Your task to perform on an android device: turn off javascript in the chrome app Image 0: 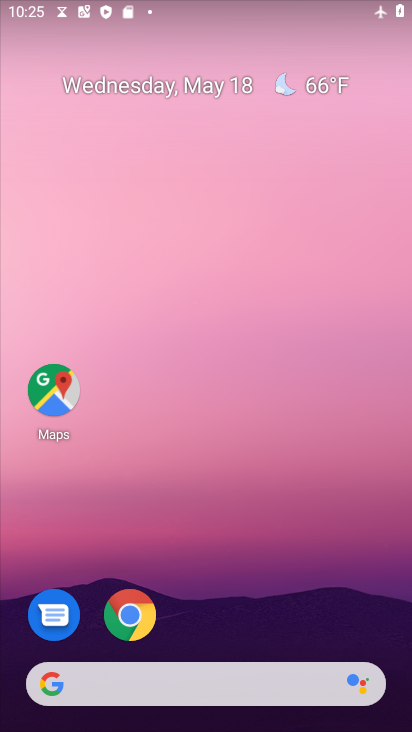
Step 0: drag from (279, 579) to (216, 2)
Your task to perform on an android device: turn off javascript in the chrome app Image 1: 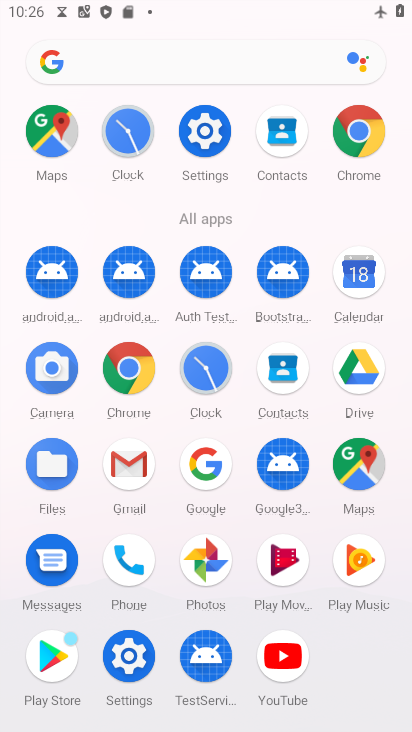
Step 1: click (128, 365)
Your task to perform on an android device: turn off javascript in the chrome app Image 2: 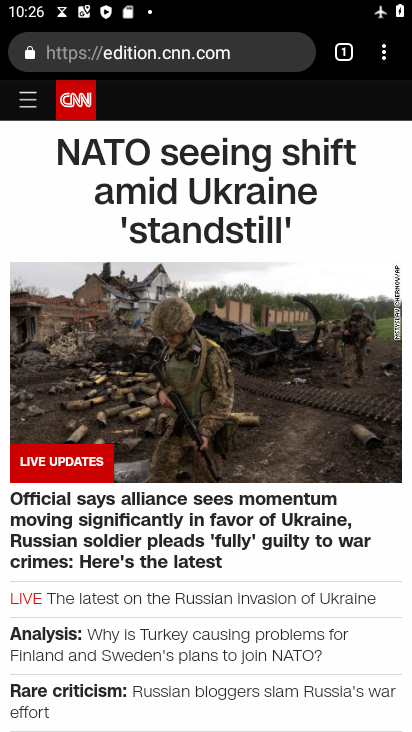
Step 2: drag from (383, 44) to (207, 577)
Your task to perform on an android device: turn off javascript in the chrome app Image 3: 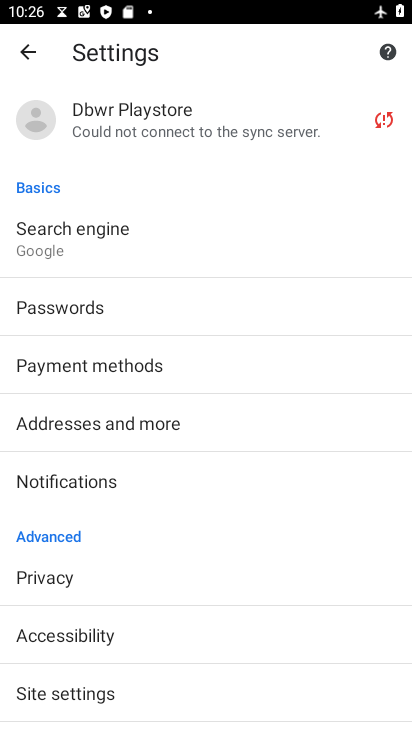
Step 3: drag from (185, 504) to (200, 207)
Your task to perform on an android device: turn off javascript in the chrome app Image 4: 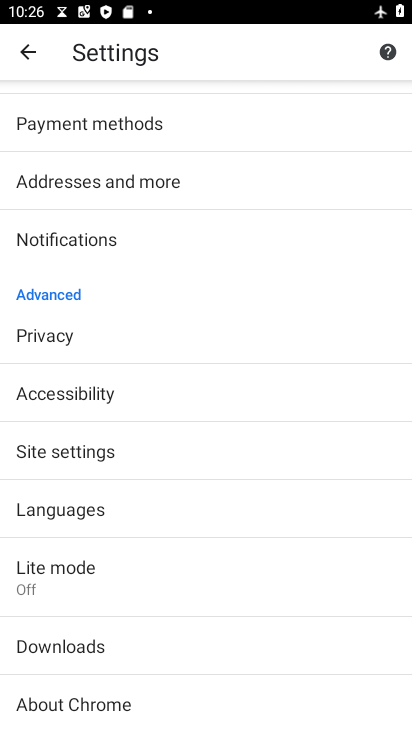
Step 4: click (111, 457)
Your task to perform on an android device: turn off javascript in the chrome app Image 5: 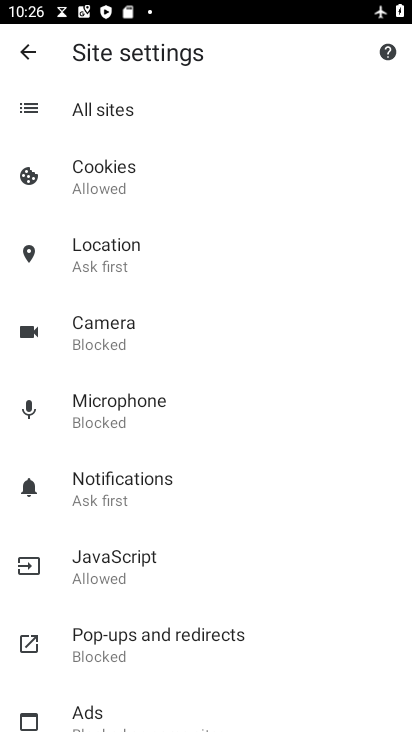
Step 5: click (136, 562)
Your task to perform on an android device: turn off javascript in the chrome app Image 6: 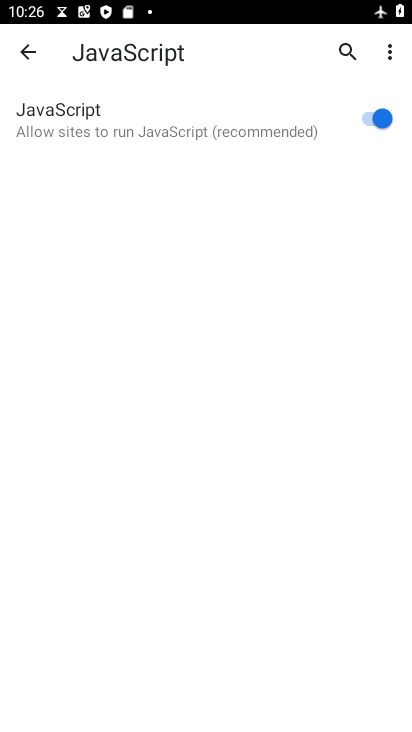
Step 6: click (370, 119)
Your task to perform on an android device: turn off javascript in the chrome app Image 7: 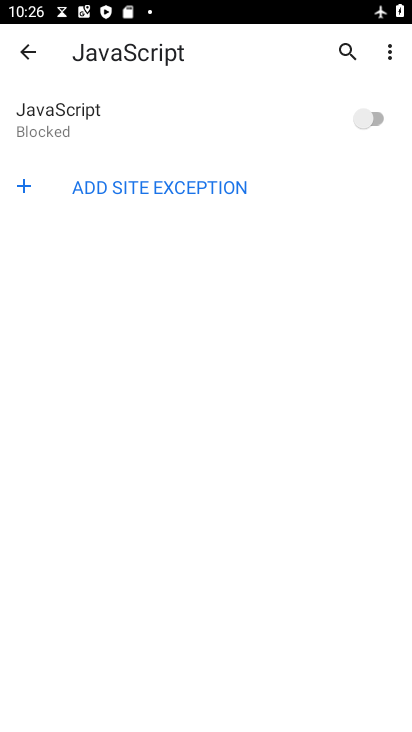
Step 7: task complete